Your task to perform on an android device: Go to Android settings Image 0: 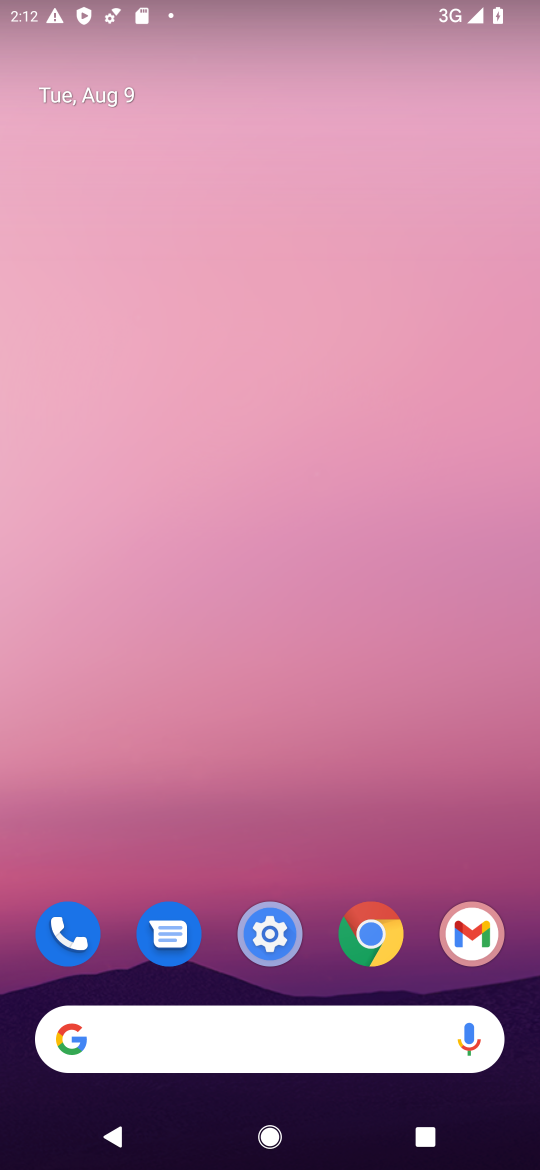
Step 0: click (279, 943)
Your task to perform on an android device: Go to Android settings Image 1: 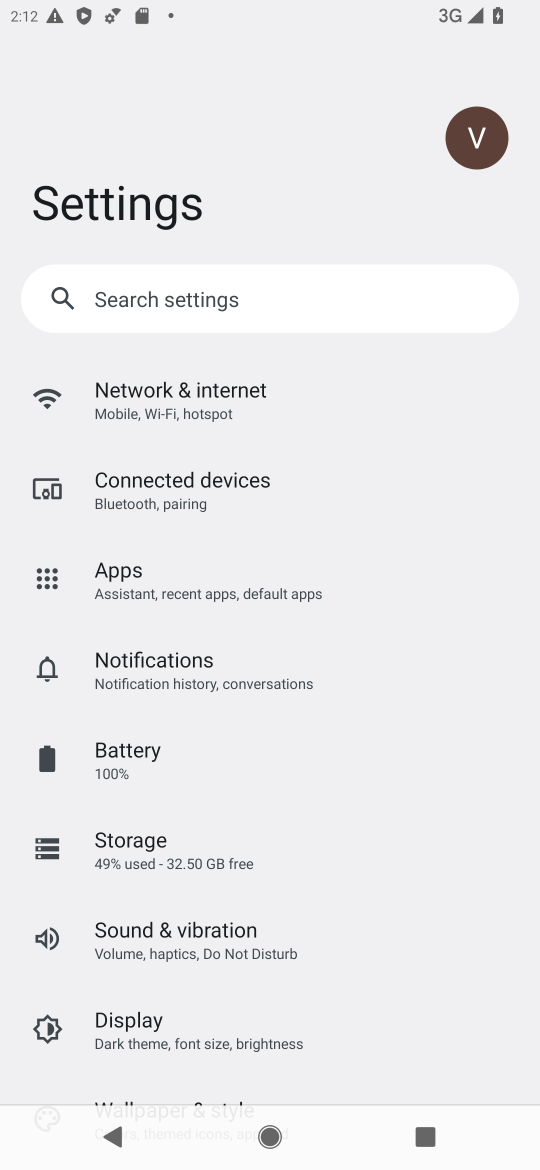
Step 1: task complete